Your task to perform on an android device: Open Chrome and go to settings Image 0: 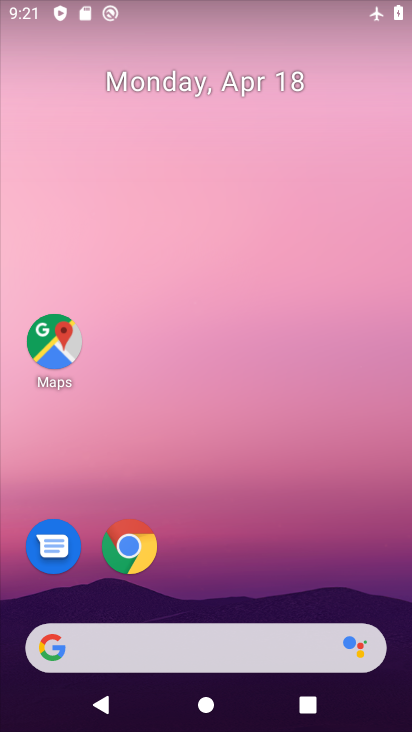
Step 0: click (123, 565)
Your task to perform on an android device: Open Chrome and go to settings Image 1: 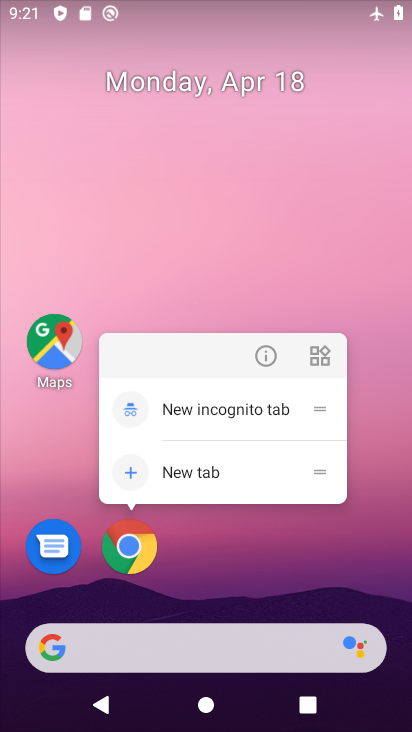
Step 1: click (139, 554)
Your task to perform on an android device: Open Chrome and go to settings Image 2: 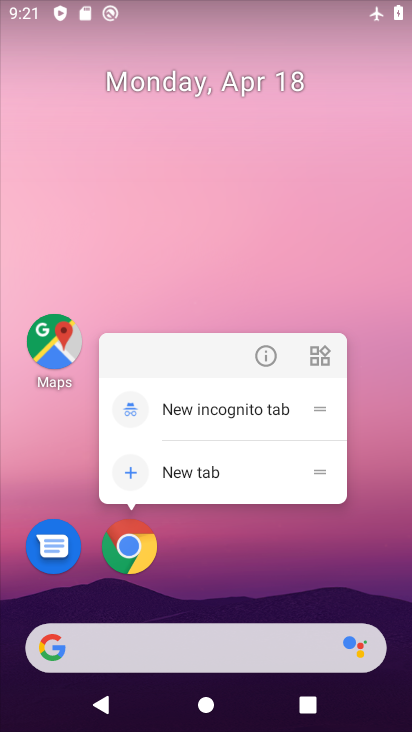
Step 2: click (140, 559)
Your task to perform on an android device: Open Chrome and go to settings Image 3: 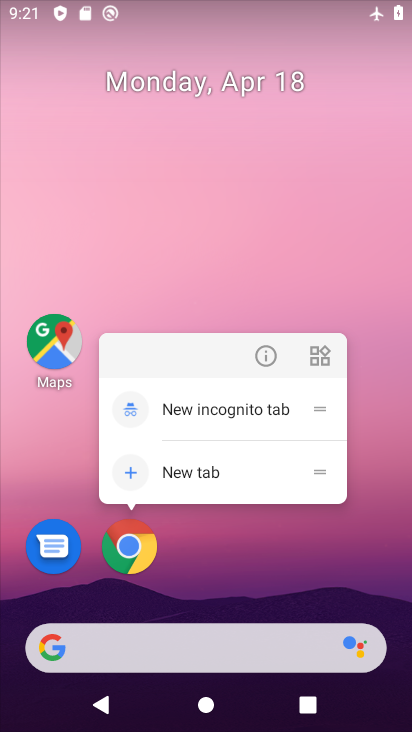
Step 3: click (140, 559)
Your task to perform on an android device: Open Chrome and go to settings Image 4: 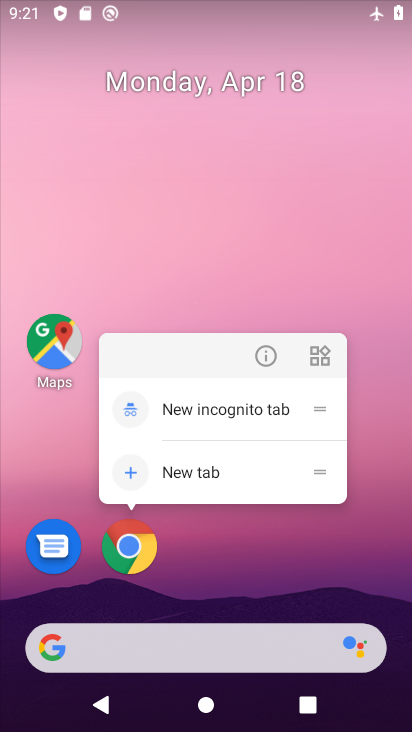
Step 4: click (140, 559)
Your task to perform on an android device: Open Chrome and go to settings Image 5: 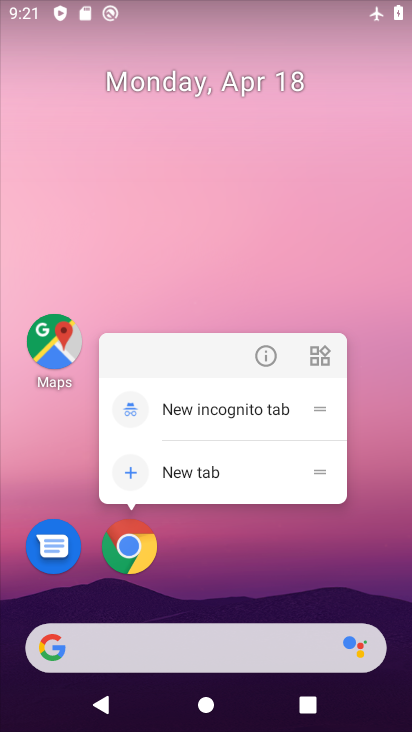
Step 5: click (140, 559)
Your task to perform on an android device: Open Chrome and go to settings Image 6: 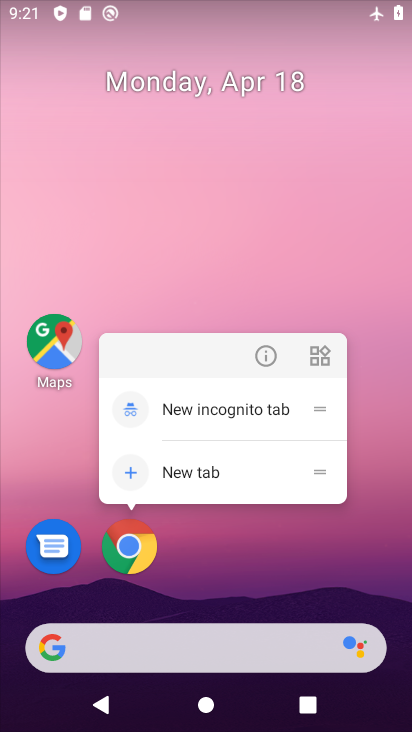
Step 6: click (132, 563)
Your task to perform on an android device: Open Chrome and go to settings Image 7: 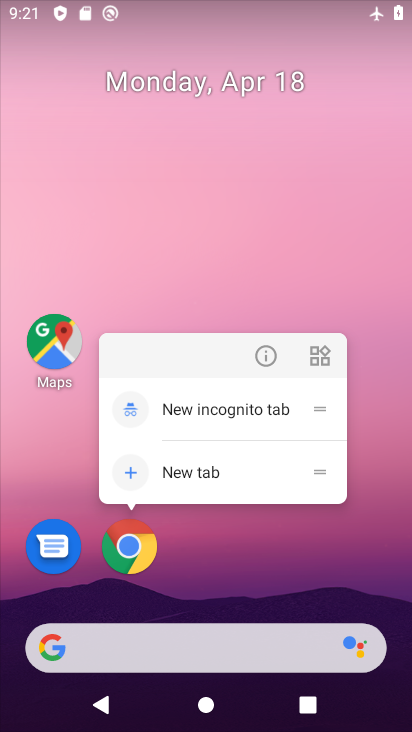
Step 7: click (132, 563)
Your task to perform on an android device: Open Chrome and go to settings Image 8: 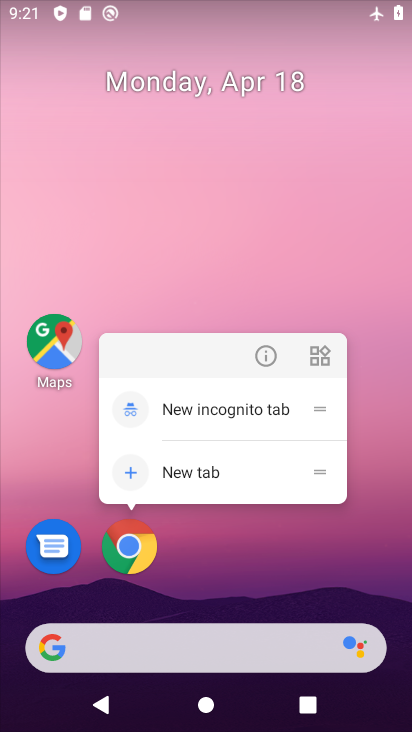
Step 8: click (132, 563)
Your task to perform on an android device: Open Chrome and go to settings Image 9: 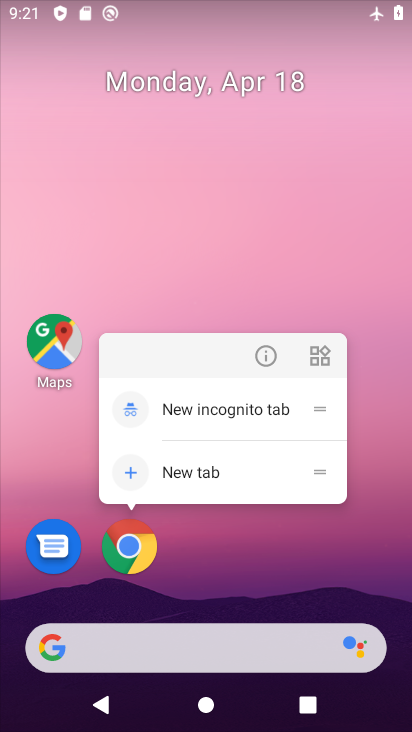
Step 9: click (140, 553)
Your task to perform on an android device: Open Chrome and go to settings Image 10: 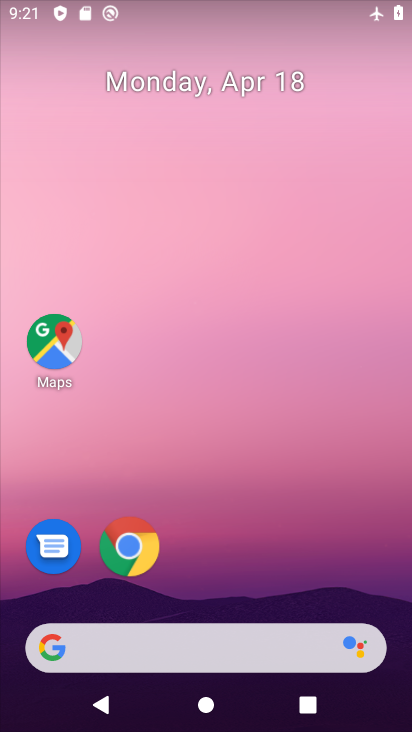
Step 10: click (140, 553)
Your task to perform on an android device: Open Chrome and go to settings Image 11: 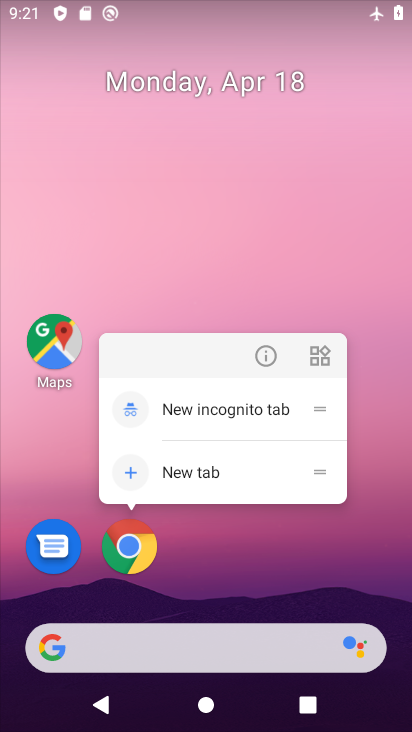
Step 11: click (140, 553)
Your task to perform on an android device: Open Chrome and go to settings Image 12: 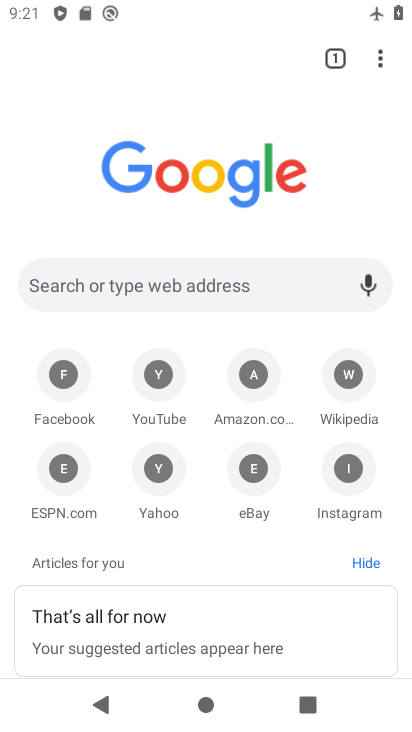
Step 12: task complete